Your task to perform on an android device: stop showing notifications on the lock screen Image 0: 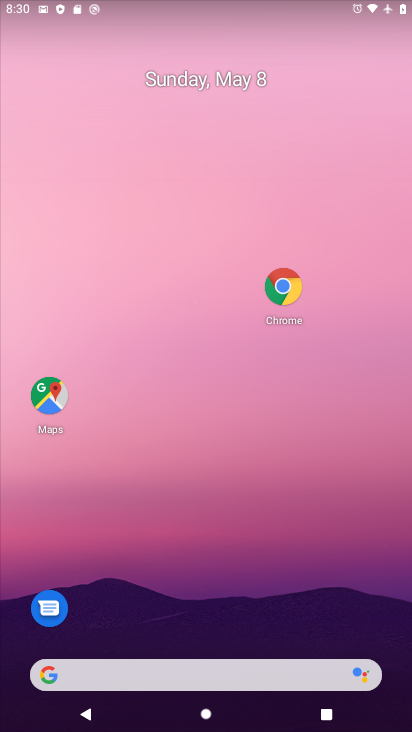
Step 0: drag from (190, 676) to (319, 117)
Your task to perform on an android device: stop showing notifications on the lock screen Image 1: 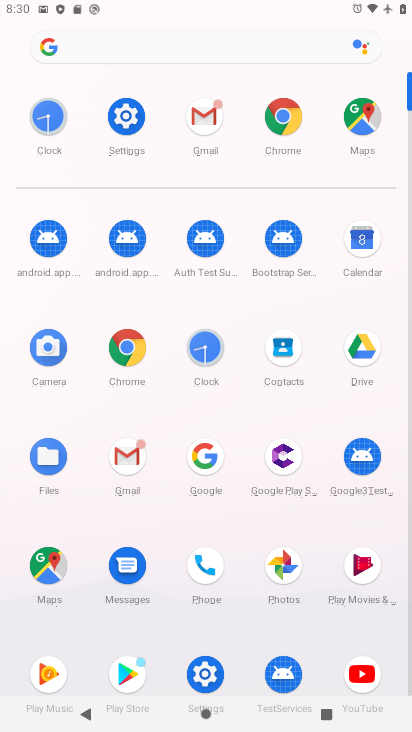
Step 1: click (130, 121)
Your task to perform on an android device: stop showing notifications on the lock screen Image 2: 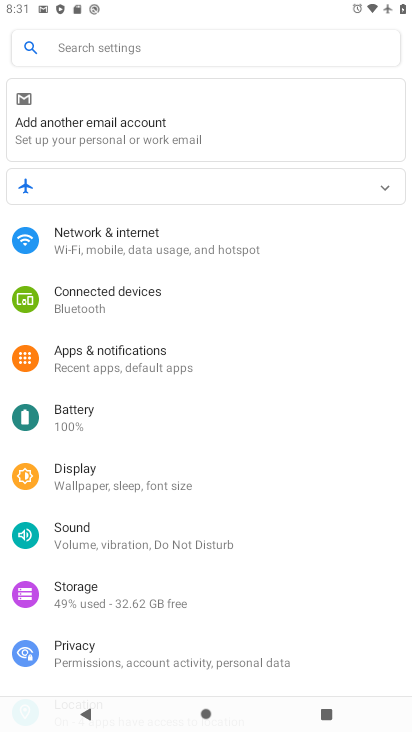
Step 2: click (145, 360)
Your task to perform on an android device: stop showing notifications on the lock screen Image 3: 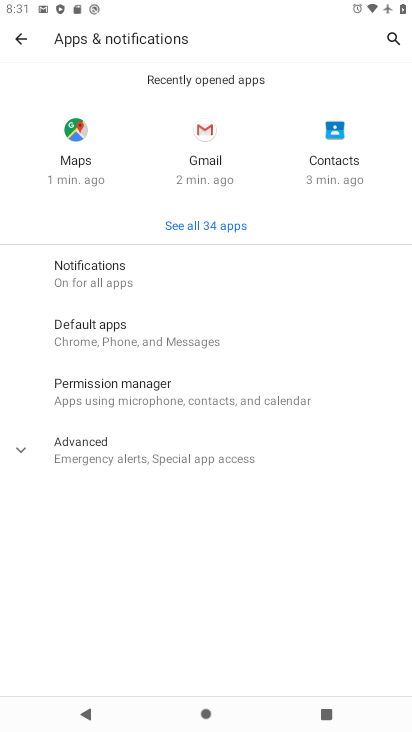
Step 3: click (119, 263)
Your task to perform on an android device: stop showing notifications on the lock screen Image 4: 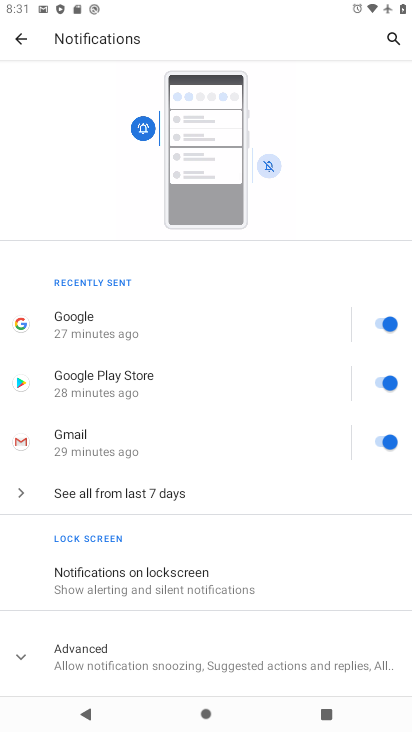
Step 4: click (179, 579)
Your task to perform on an android device: stop showing notifications on the lock screen Image 5: 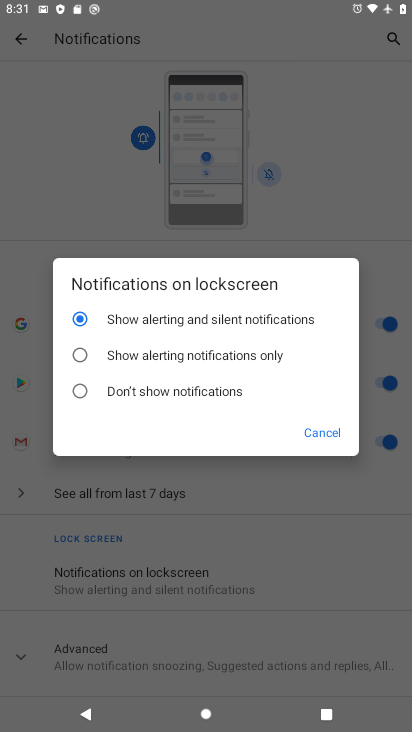
Step 5: click (76, 386)
Your task to perform on an android device: stop showing notifications on the lock screen Image 6: 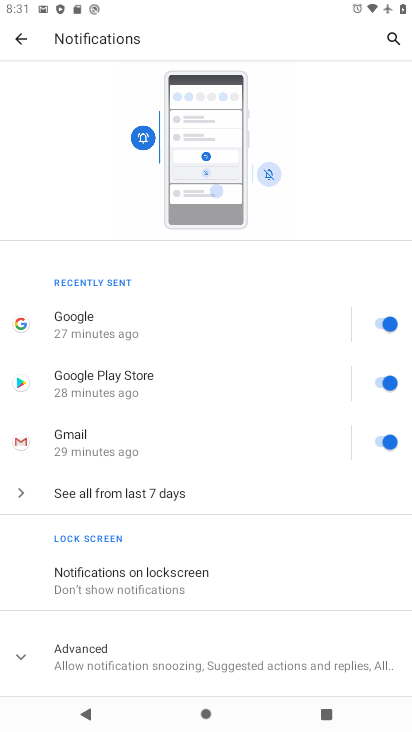
Step 6: task complete